Your task to perform on an android device: turn on location history Image 0: 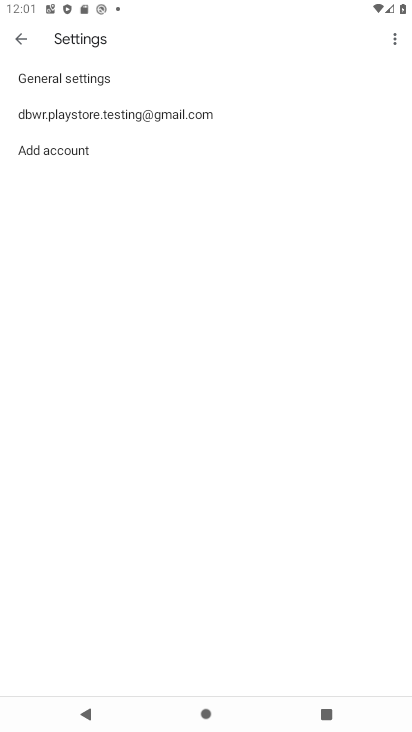
Step 0: press home button
Your task to perform on an android device: turn on location history Image 1: 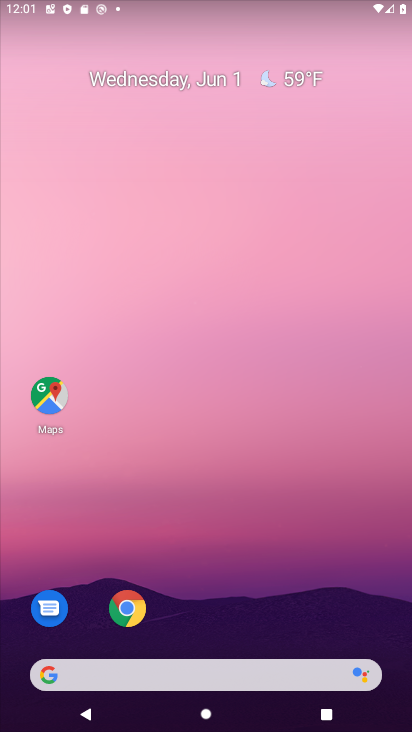
Step 1: drag from (181, 630) to (218, 194)
Your task to perform on an android device: turn on location history Image 2: 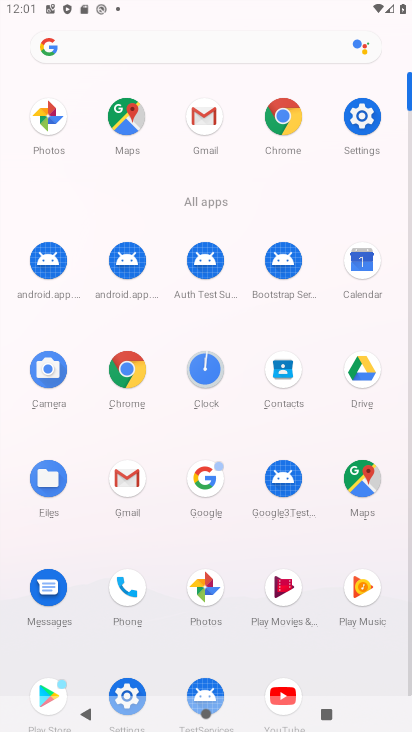
Step 2: click (361, 137)
Your task to perform on an android device: turn on location history Image 3: 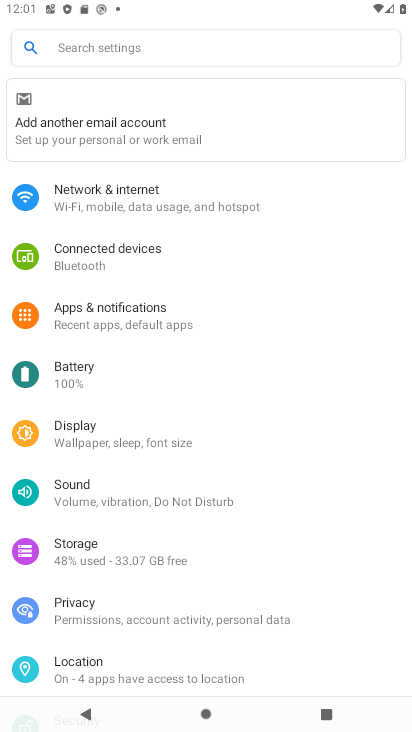
Step 3: click (107, 669)
Your task to perform on an android device: turn on location history Image 4: 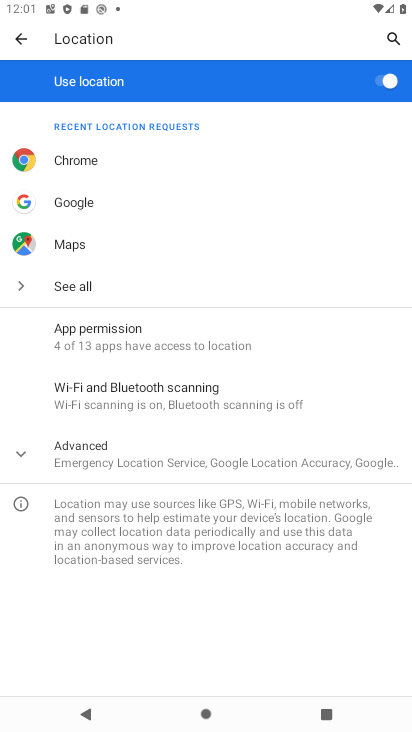
Step 4: click (114, 446)
Your task to perform on an android device: turn on location history Image 5: 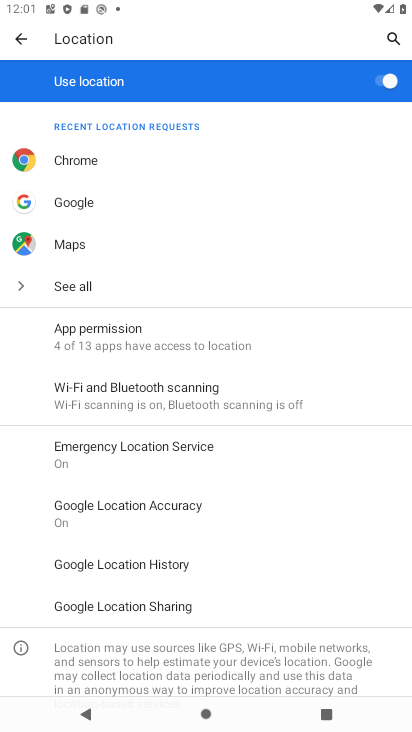
Step 5: click (162, 569)
Your task to perform on an android device: turn on location history Image 6: 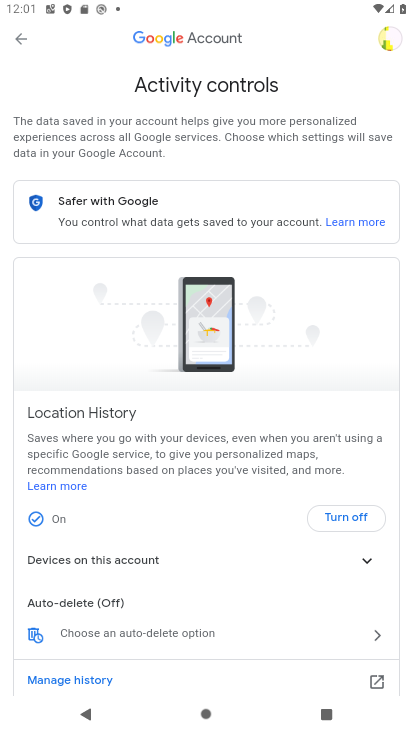
Step 6: task complete